Your task to perform on an android device: Open Youtube and go to the subscriptions tab Image 0: 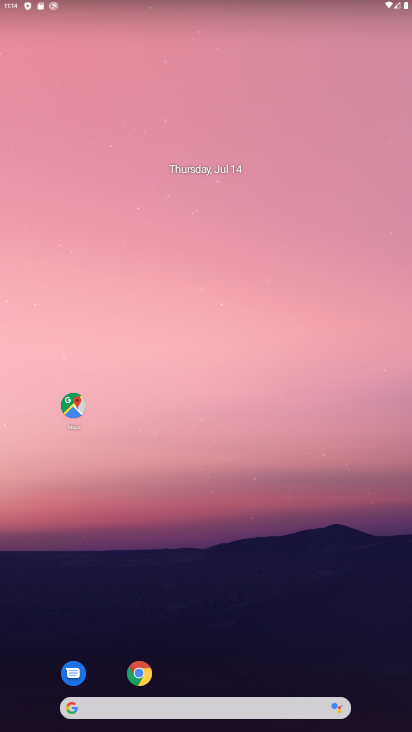
Step 0: drag from (312, 646) to (194, 105)
Your task to perform on an android device: Open Youtube and go to the subscriptions tab Image 1: 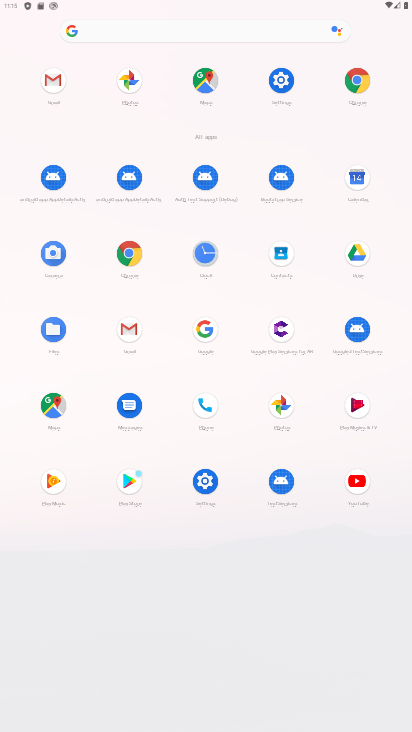
Step 1: click (358, 488)
Your task to perform on an android device: Open Youtube and go to the subscriptions tab Image 2: 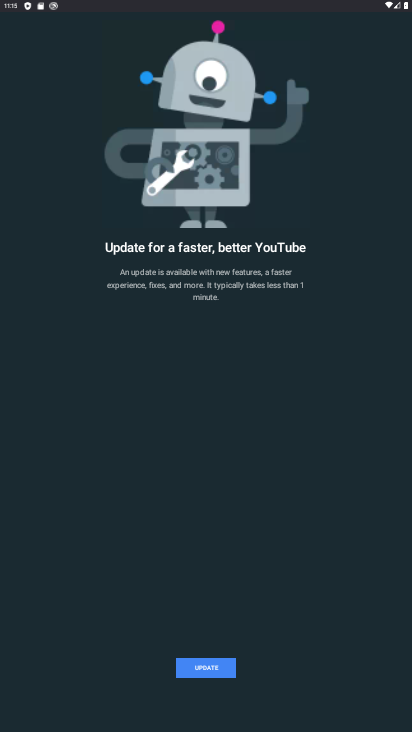
Step 2: task complete